Your task to perform on an android device: Open Yahoo.com Image 0: 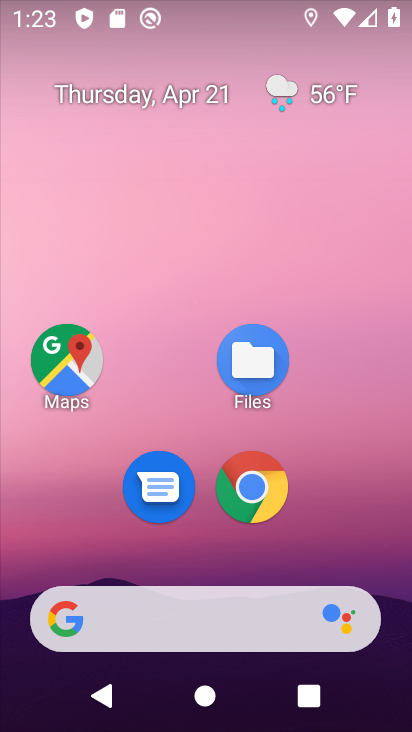
Step 0: drag from (348, 506) to (339, 169)
Your task to perform on an android device: Open Yahoo.com Image 1: 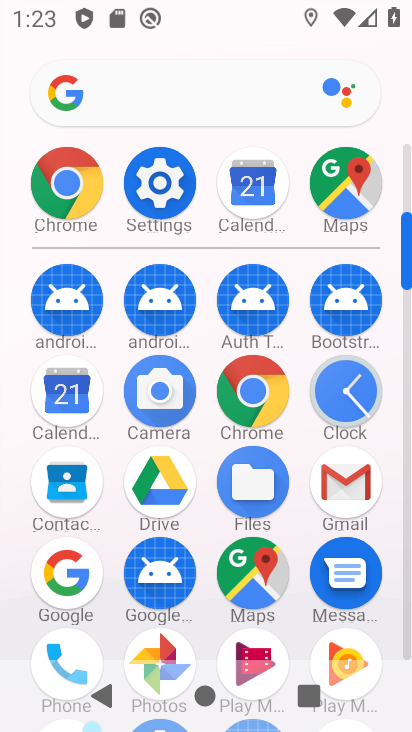
Step 1: click (251, 415)
Your task to perform on an android device: Open Yahoo.com Image 2: 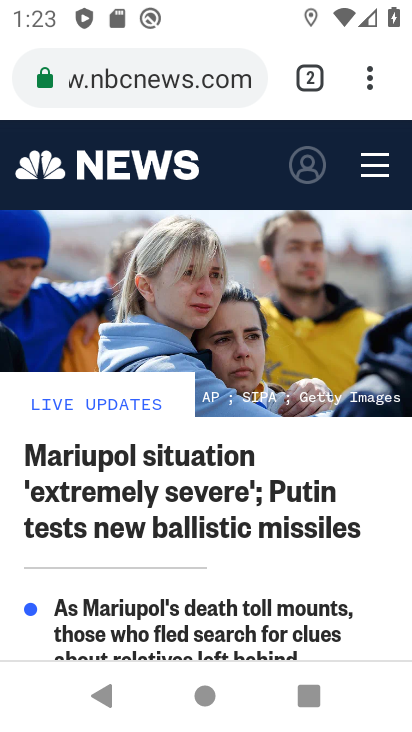
Step 2: click (313, 100)
Your task to perform on an android device: Open Yahoo.com Image 3: 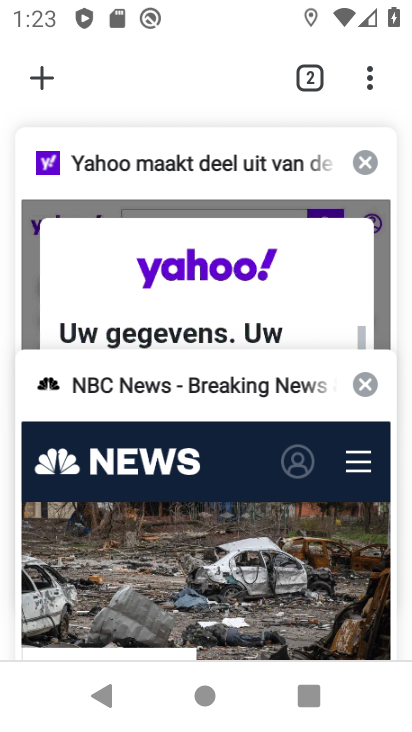
Step 3: click (52, 87)
Your task to perform on an android device: Open Yahoo.com Image 4: 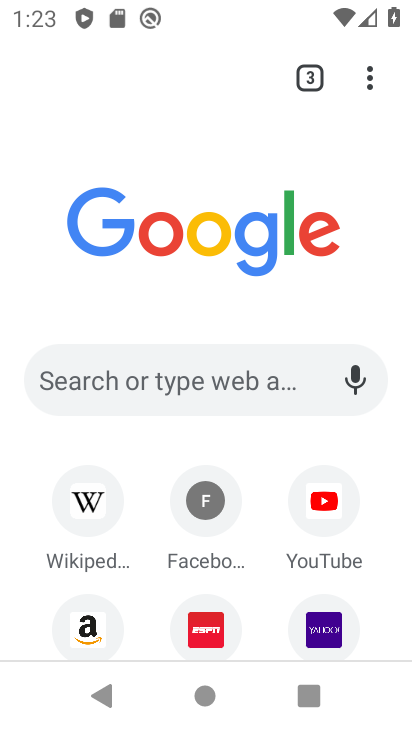
Step 4: click (99, 389)
Your task to perform on an android device: Open Yahoo.com Image 5: 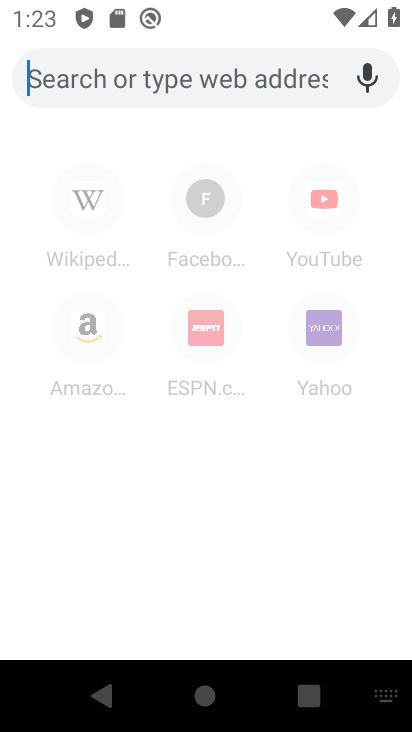
Step 5: type "yahoo.com"
Your task to perform on an android device: Open Yahoo.com Image 6: 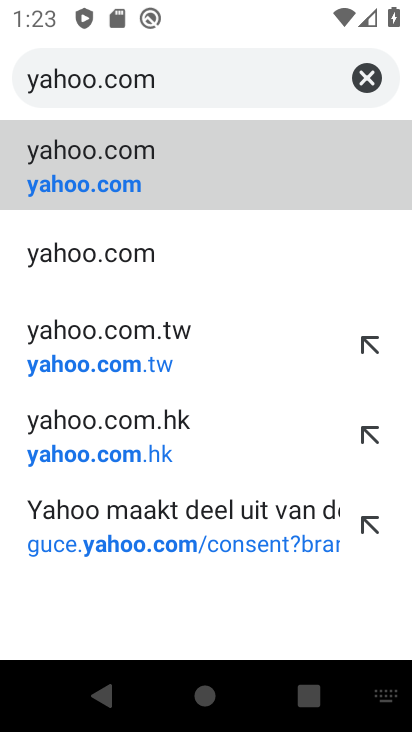
Step 6: click (90, 183)
Your task to perform on an android device: Open Yahoo.com Image 7: 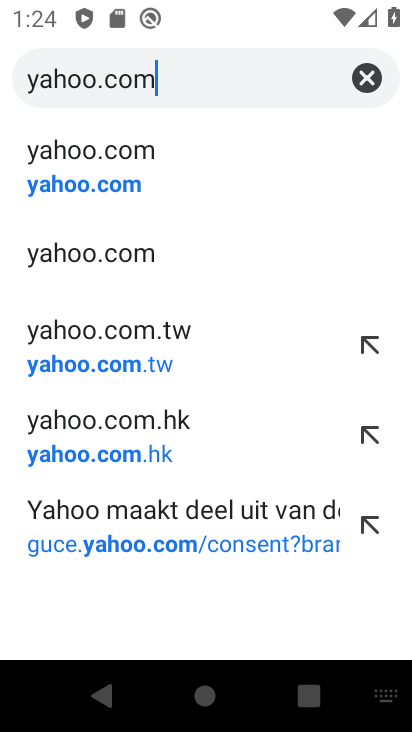
Step 7: click (90, 183)
Your task to perform on an android device: Open Yahoo.com Image 8: 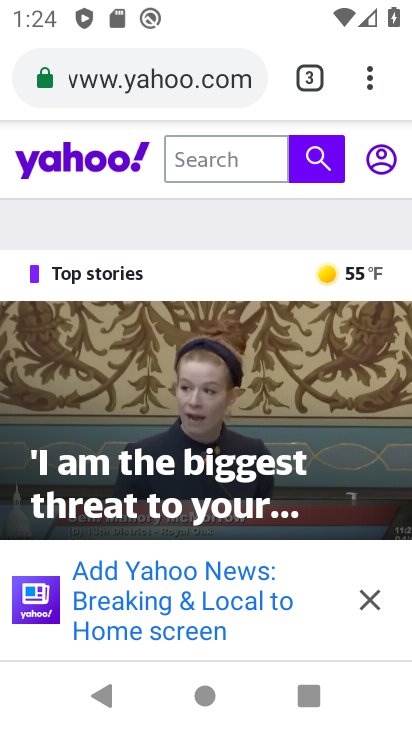
Step 8: task complete